Your task to perform on an android device: Open Youtube and go to the subscriptions tab Image 0: 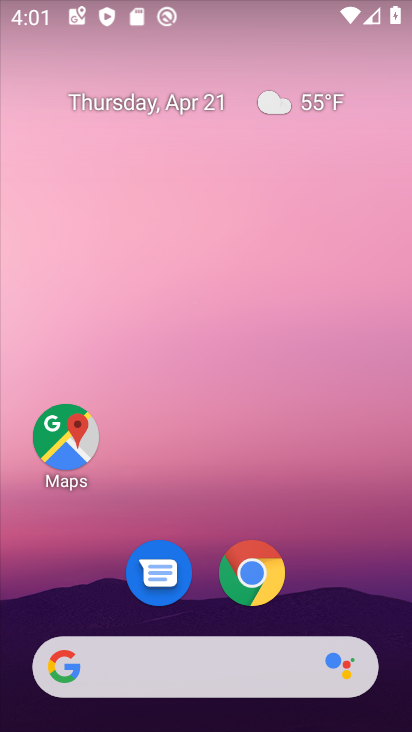
Step 0: drag from (366, 598) to (294, 204)
Your task to perform on an android device: Open Youtube and go to the subscriptions tab Image 1: 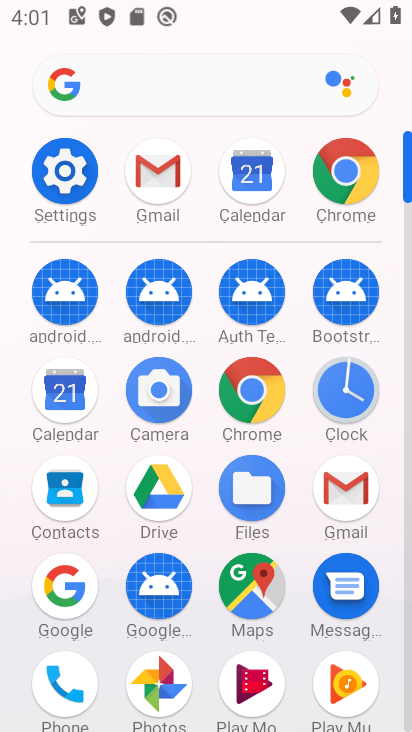
Step 1: click (410, 698)
Your task to perform on an android device: Open Youtube and go to the subscriptions tab Image 2: 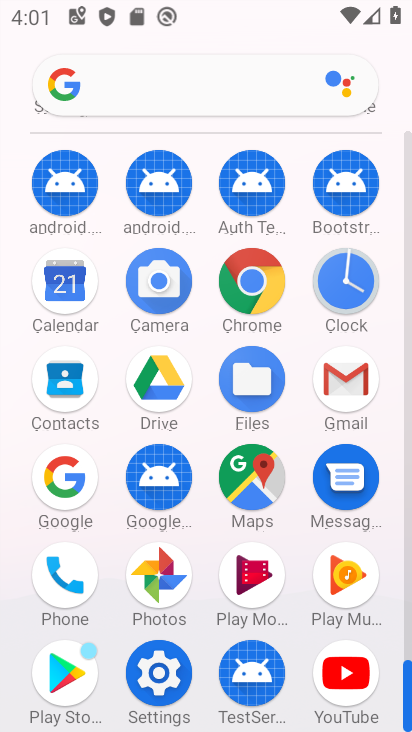
Step 2: click (342, 673)
Your task to perform on an android device: Open Youtube and go to the subscriptions tab Image 3: 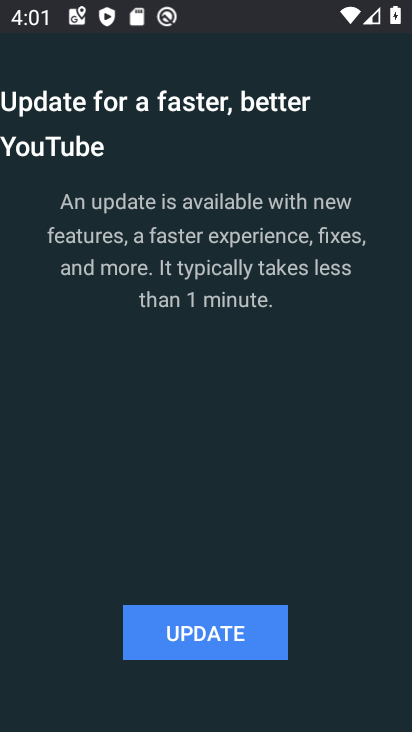
Step 3: click (203, 637)
Your task to perform on an android device: Open Youtube and go to the subscriptions tab Image 4: 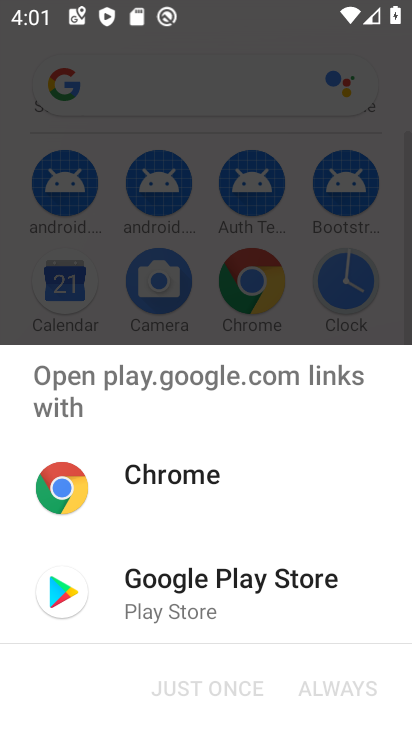
Step 4: click (179, 594)
Your task to perform on an android device: Open Youtube and go to the subscriptions tab Image 5: 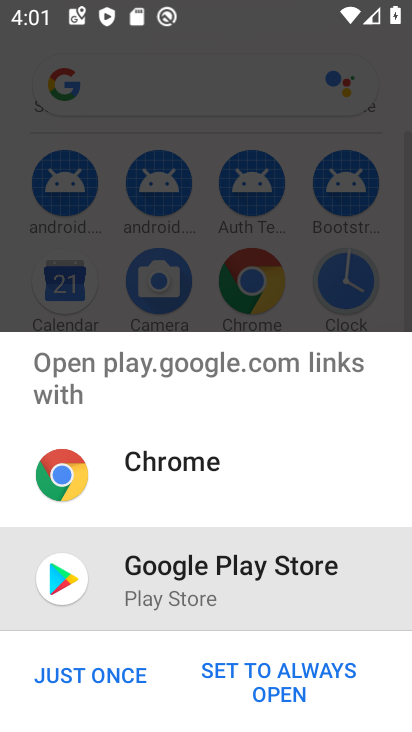
Step 5: click (80, 678)
Your task to perform on an android device: Open Youtube and go to the subscriptions tab Image 6: 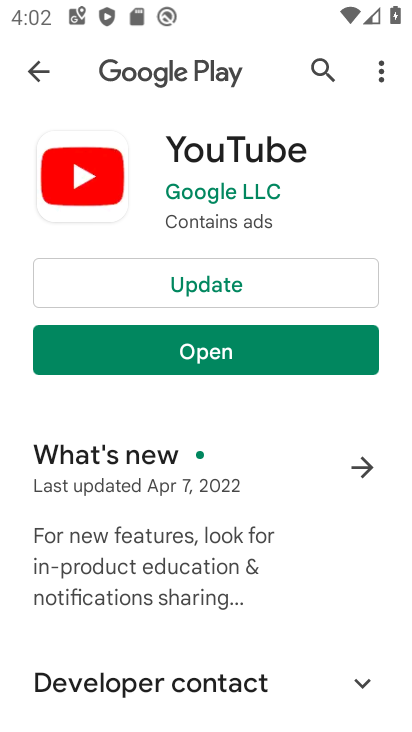
Step 6: click (203, 291)
Your task to perform on an android device: Open Youtube and go to the subscriptions tab Image 7: 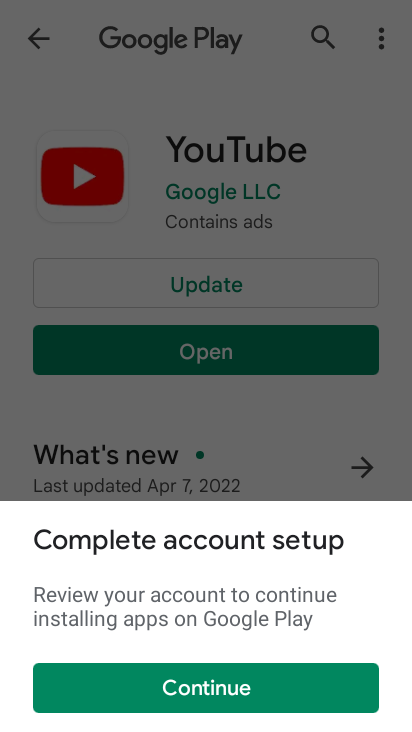
Step 7: click (239, 349)
Your task to perform on an android device: Open Youtube and go to the subscriptions tab Image 8: 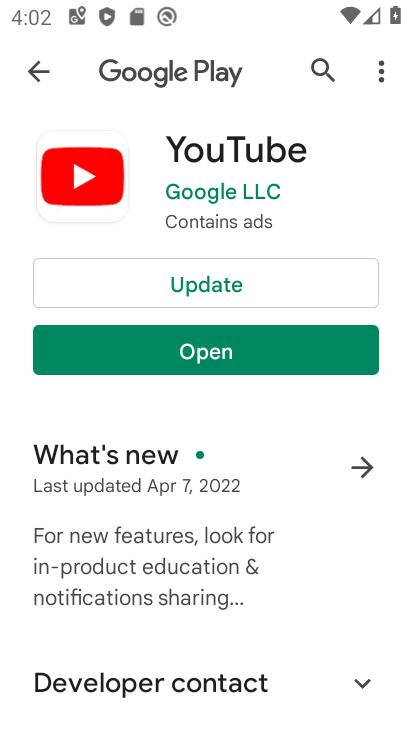
Step 8: click (222, 293)
Your task to perform on an android device: Open Youtube and go to the subscriptions tab Image 9: 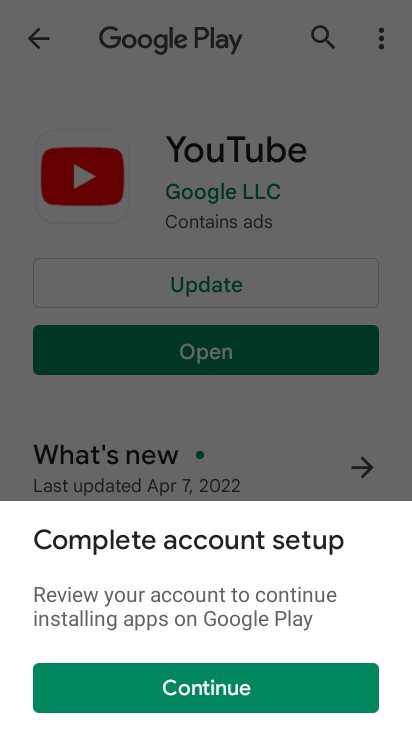
Step 9: task complete